Your task to perform on an android device: manage bookmarks in the chrome app Image 0: 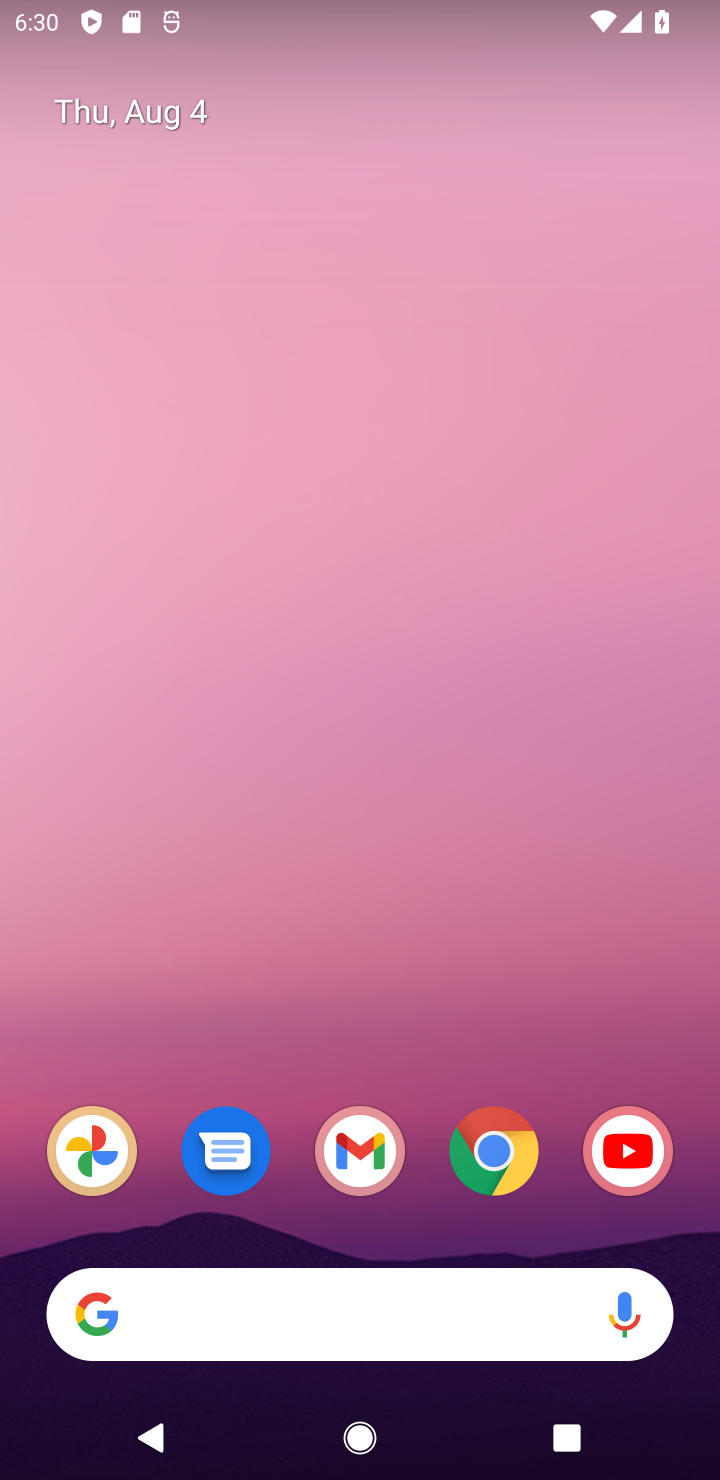
Step 0: click (518, 1170)
Your task to perform on an android device: manage bookmarks in the chrome app Image 1: 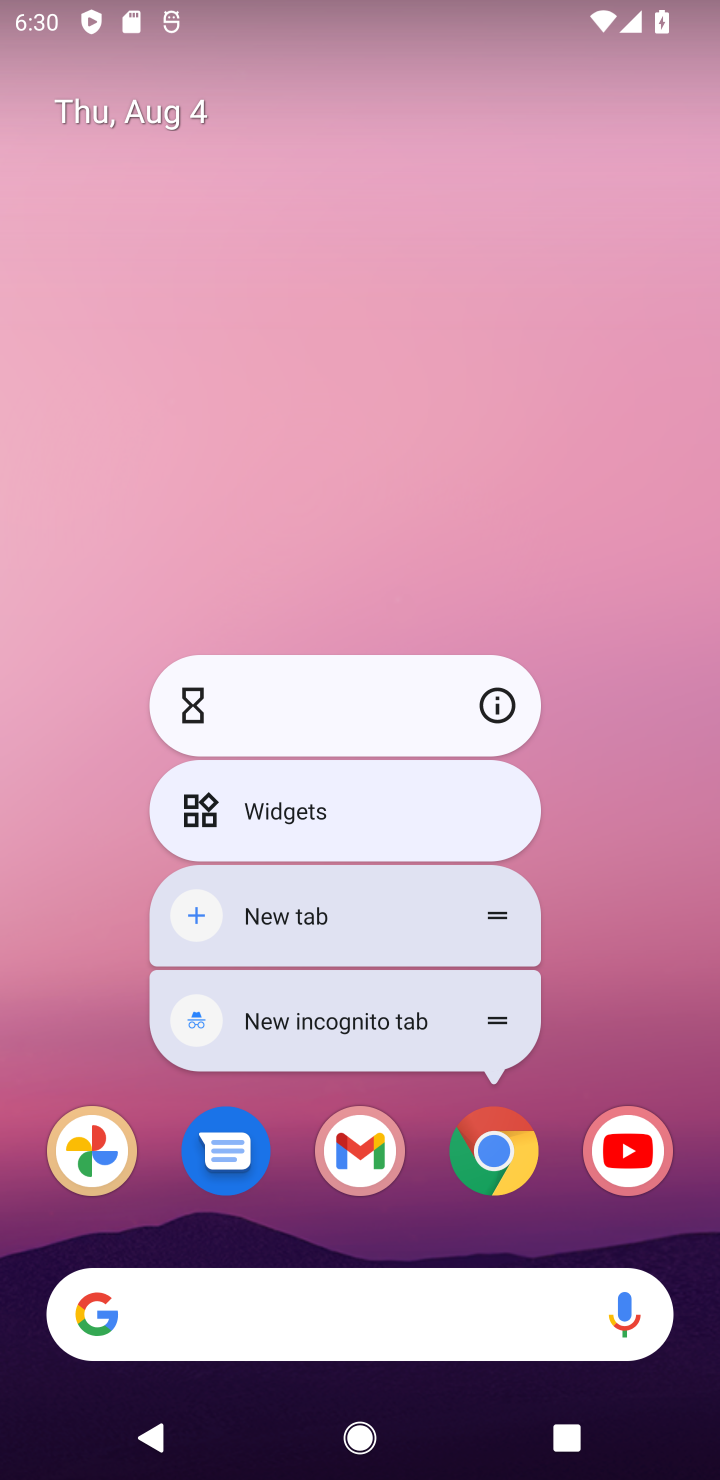
Step 1: click (518, 1170)
Your task to perform on an android device: manage bookmarks in the chrome app Image 2: 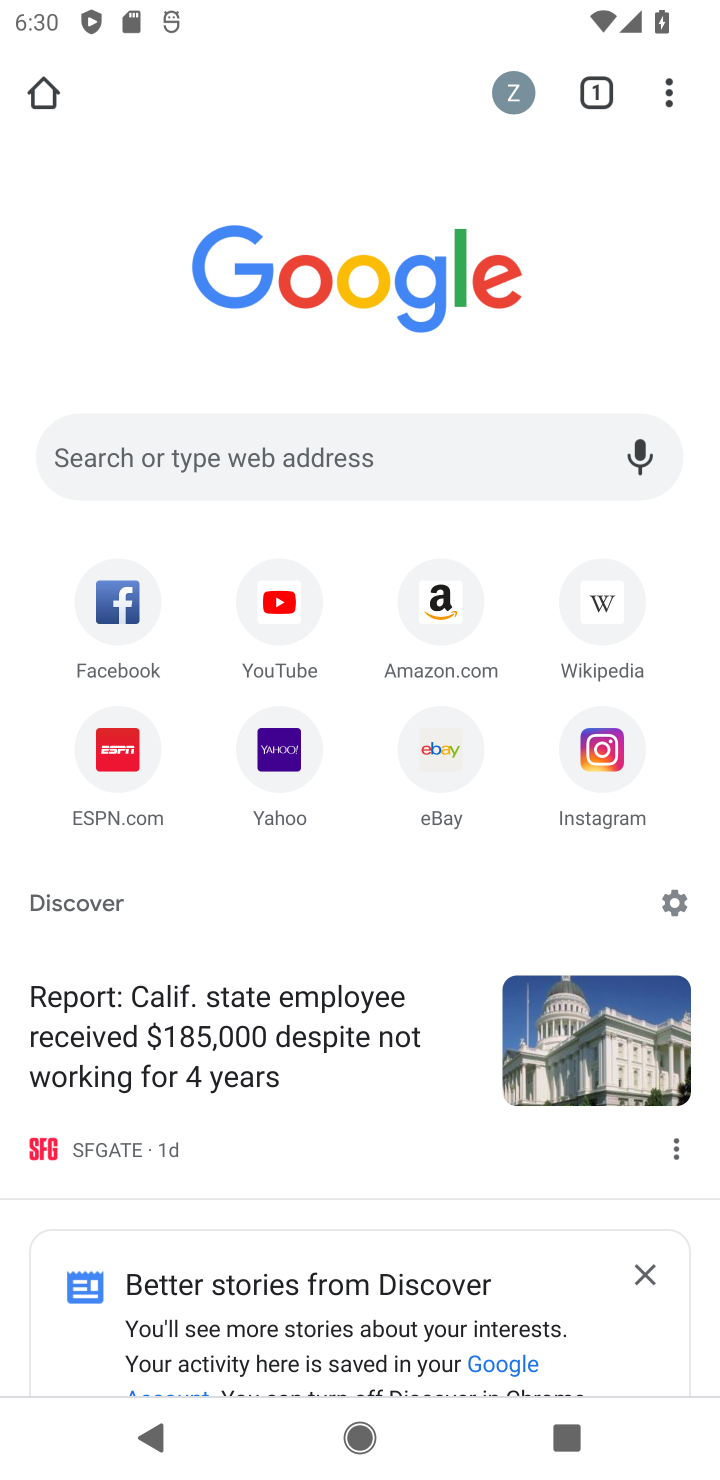
Step 2: click (677, 83)
Your task to perform on an android device: manage bookmarks in the chrome app Image 3: 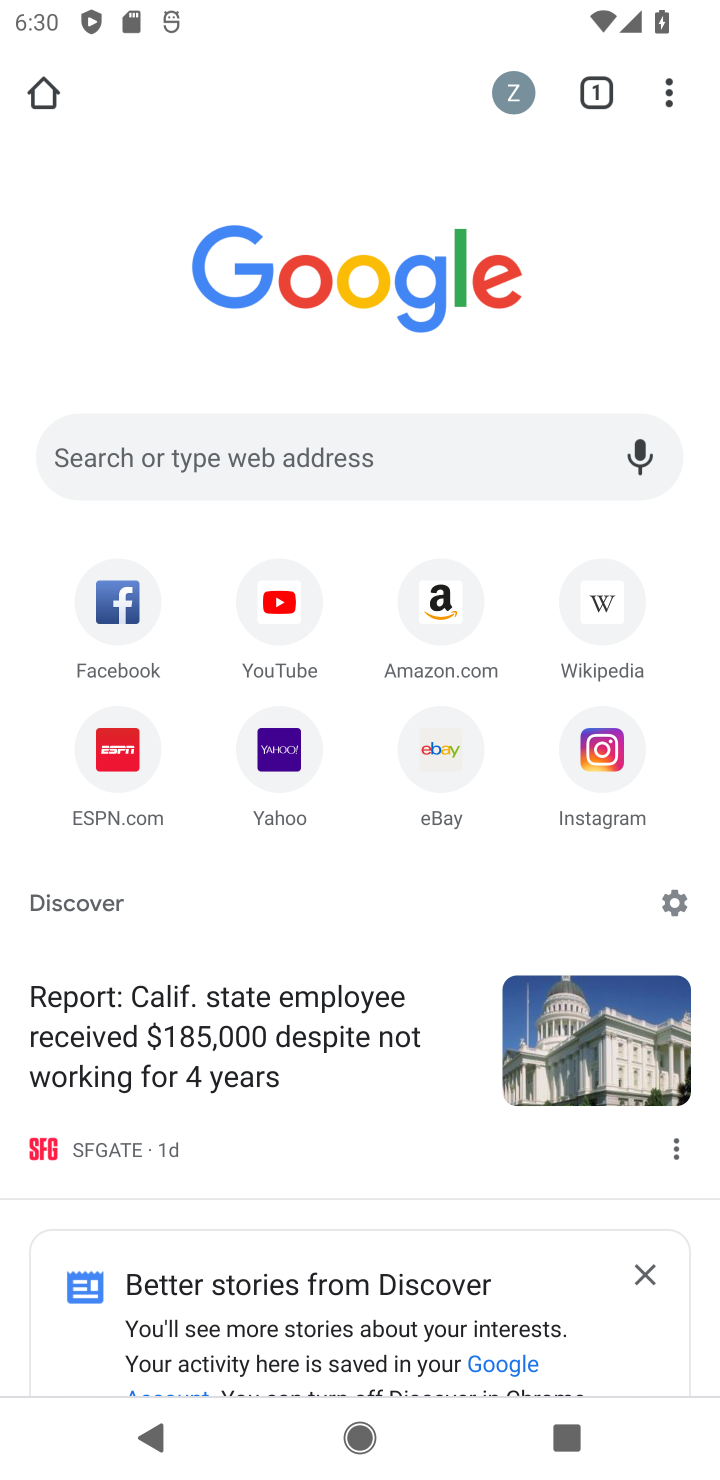
Step 3: click (672, 75)
Your task to perform on an android device: manage bookmarks in the chrome app Image 4: 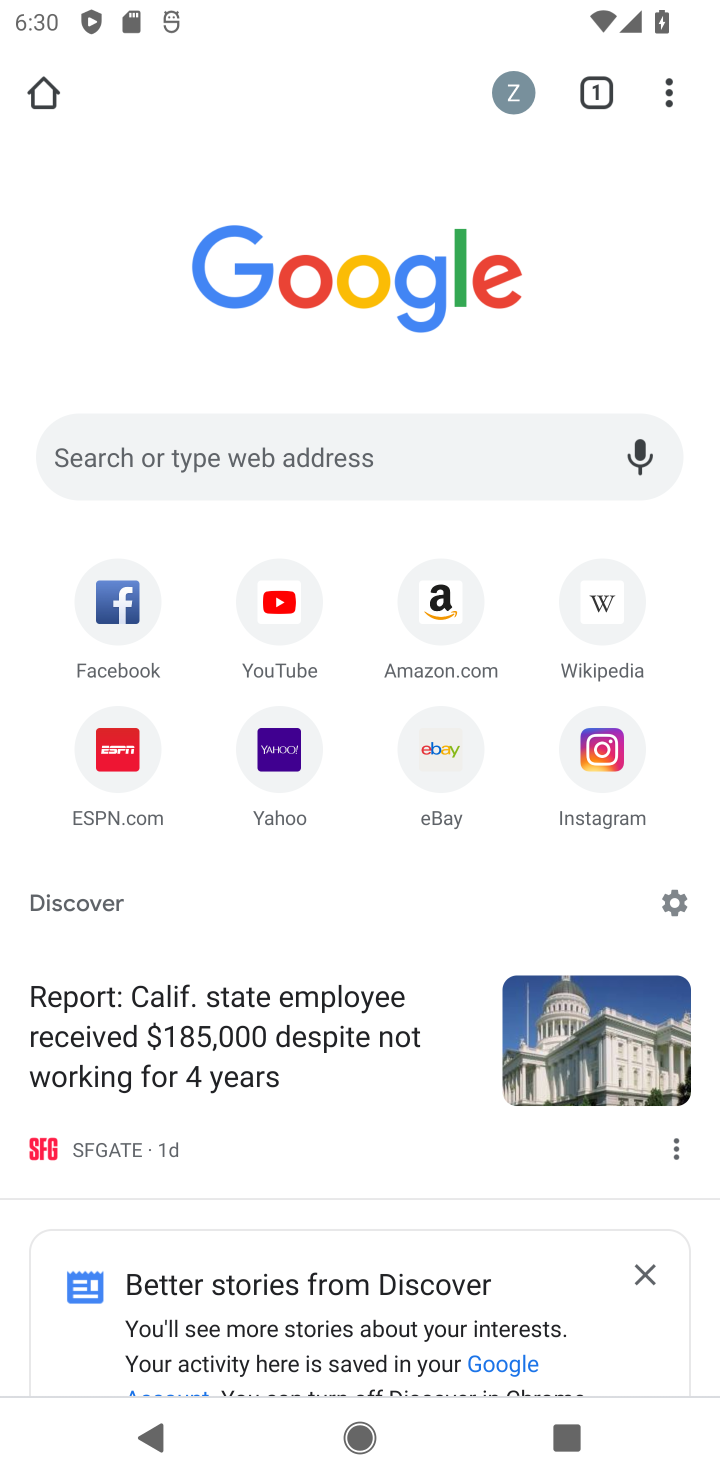
Step 4: click (665, 103)
Your task to perform on an android device: manage bookmarks in the chrome app Image 5: 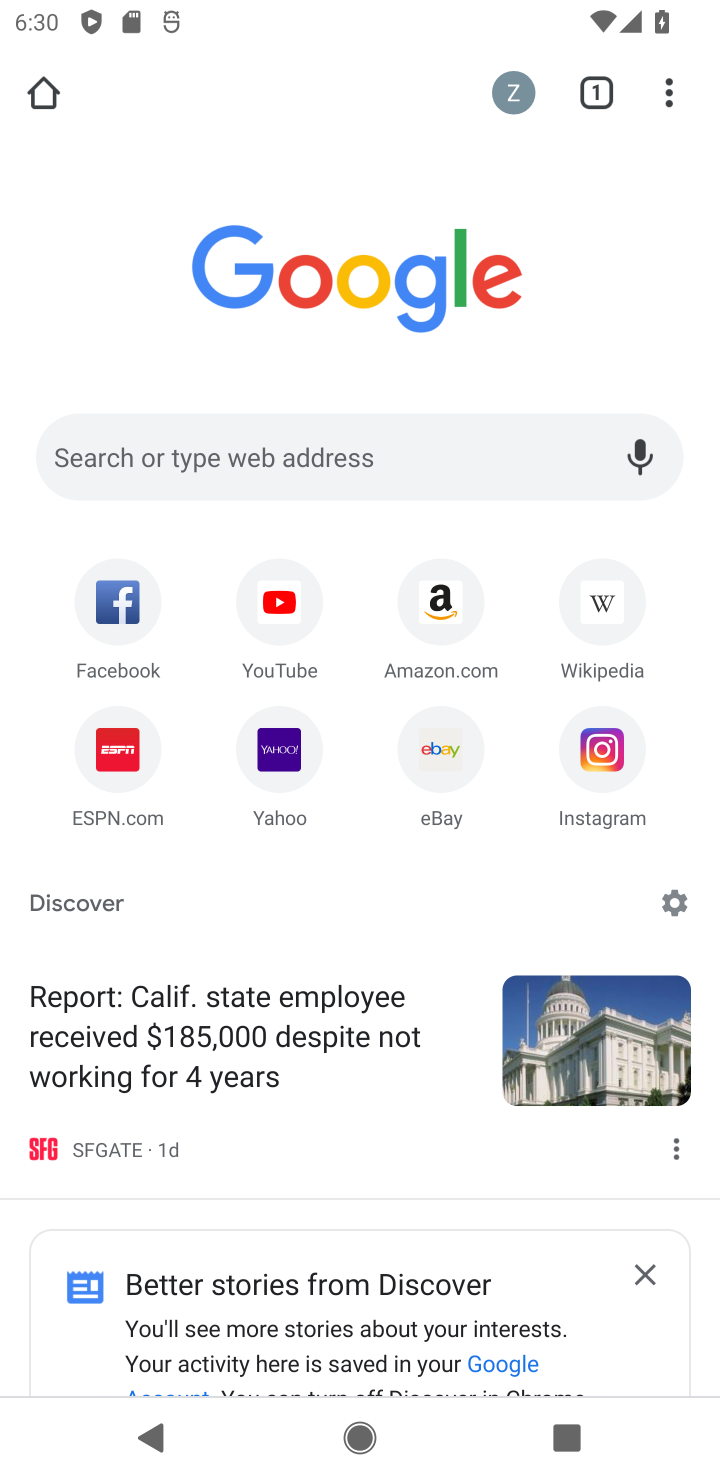
Step 5: click (657, 105)
Your task to perform on an android device: manage bookmarks in the chrome app Image 6: 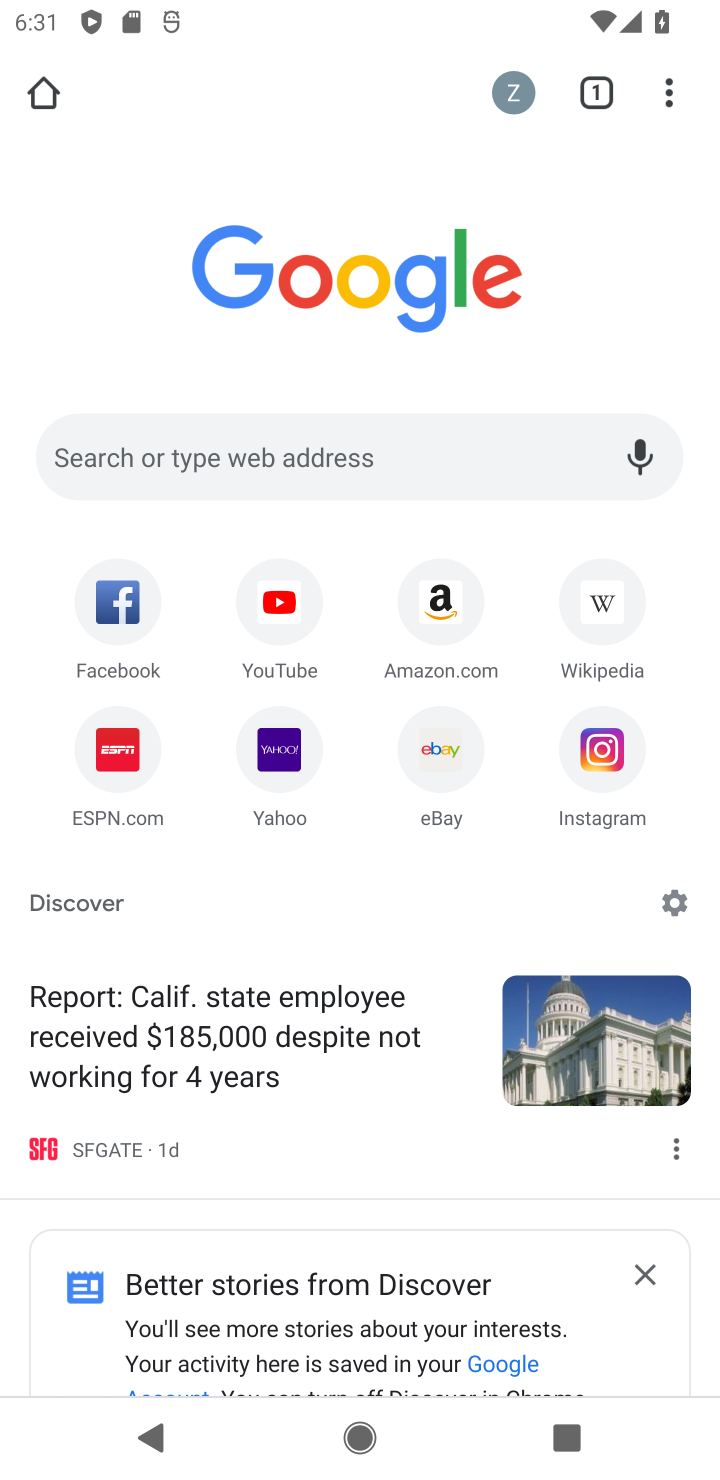
Step 6: click (677, 93)
Your task to perform on an android device: manage bookmarks in the chrome app Image 7: 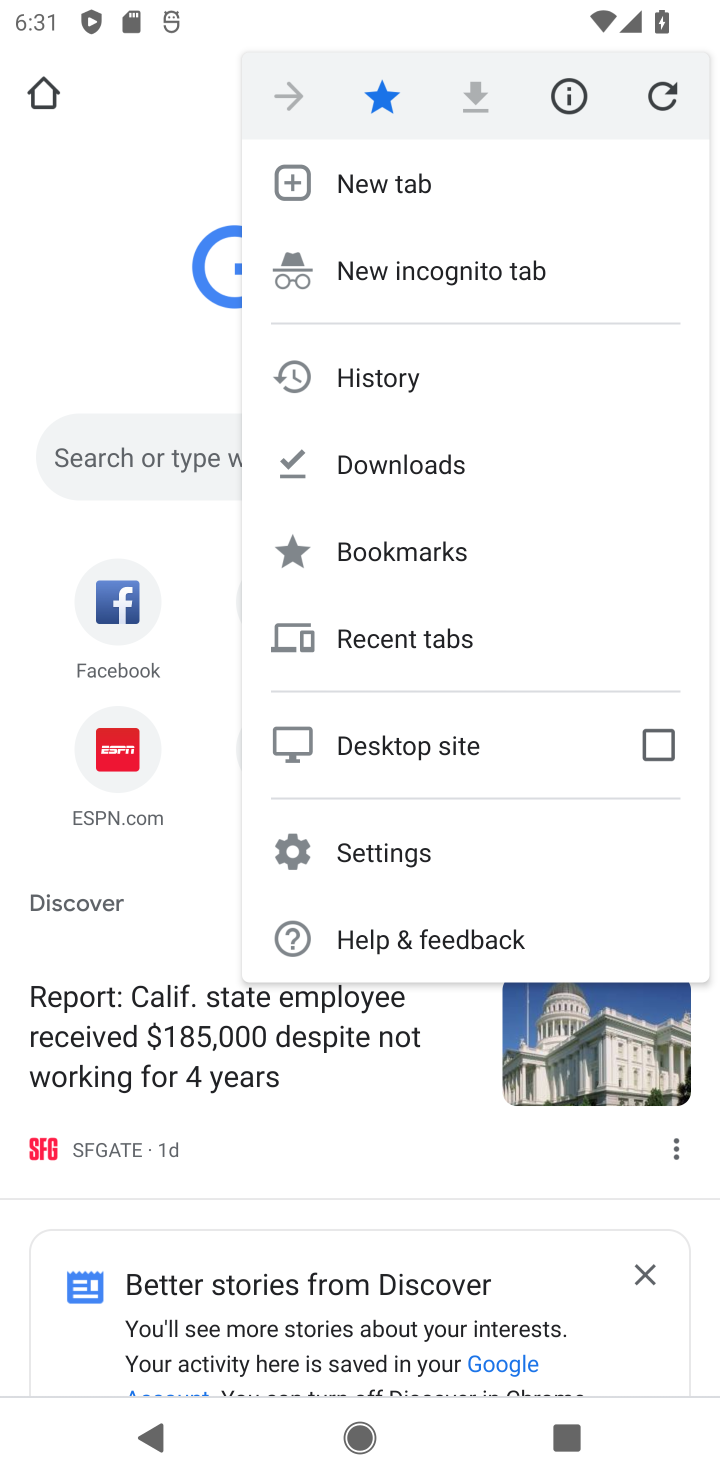
Step 7: click (437, 556)
Your task to perform on an android device: manage bookmarks in the chrome app Image 8: 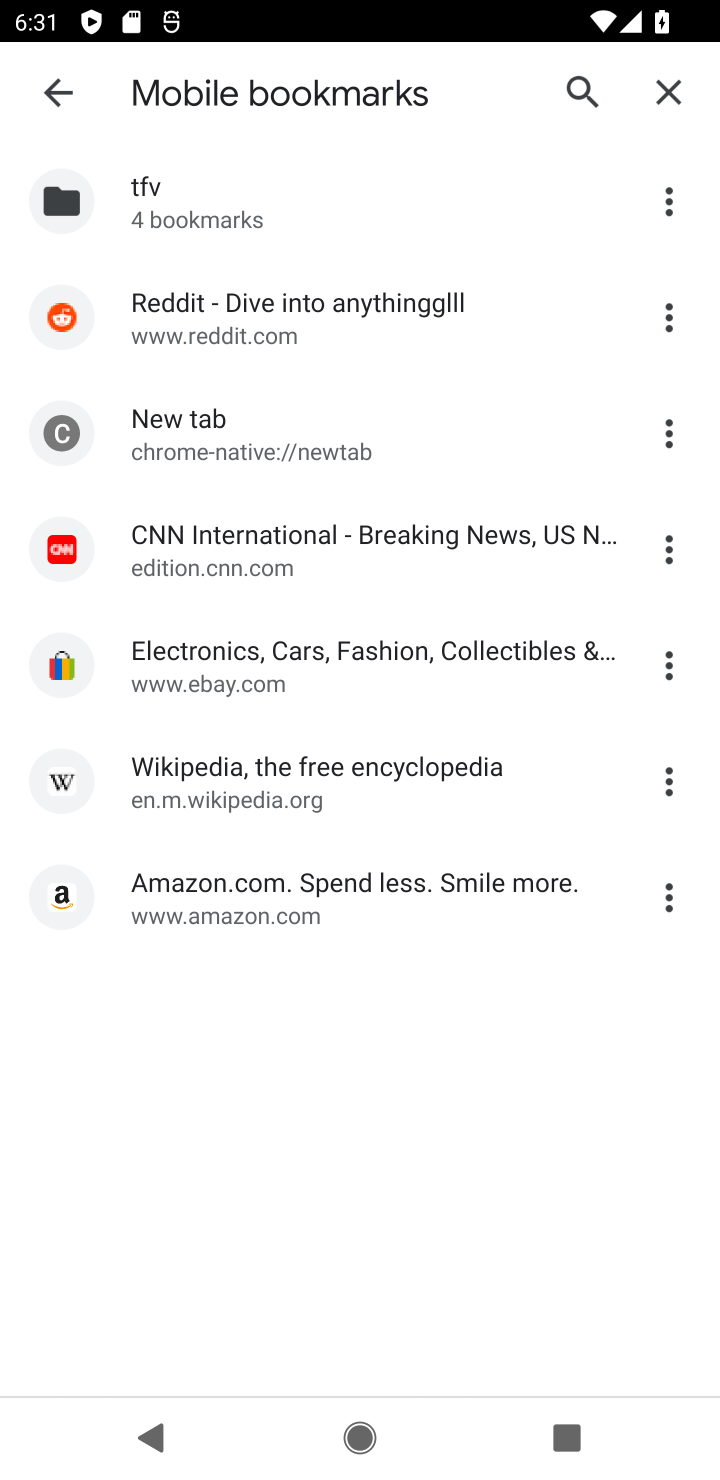
Step 8: click (670, 310)
Your task to perform on an android device: manage bookmarks in the chrome app Image 9: 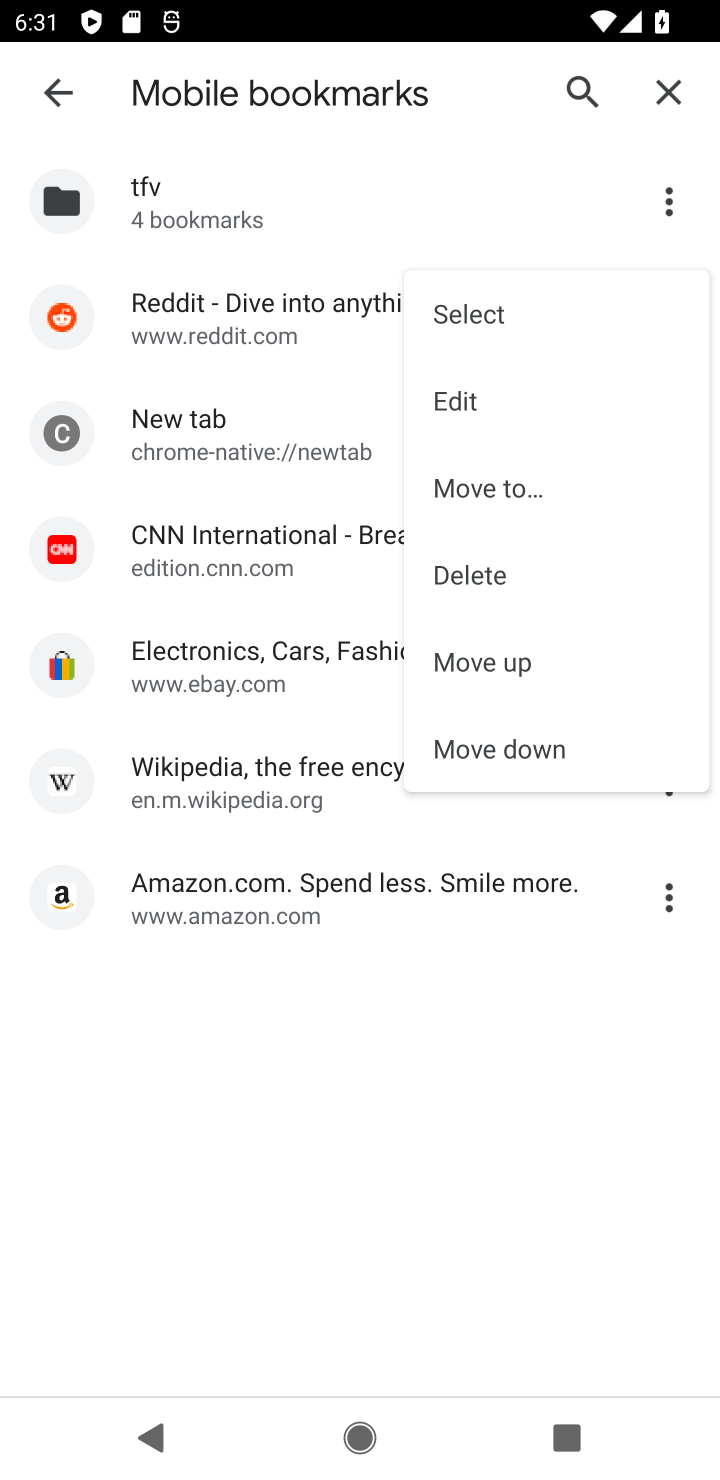
Step 9: click (497, 309)
Your task to perform on an android device: manage bookmarks in the chrome app Image 10: 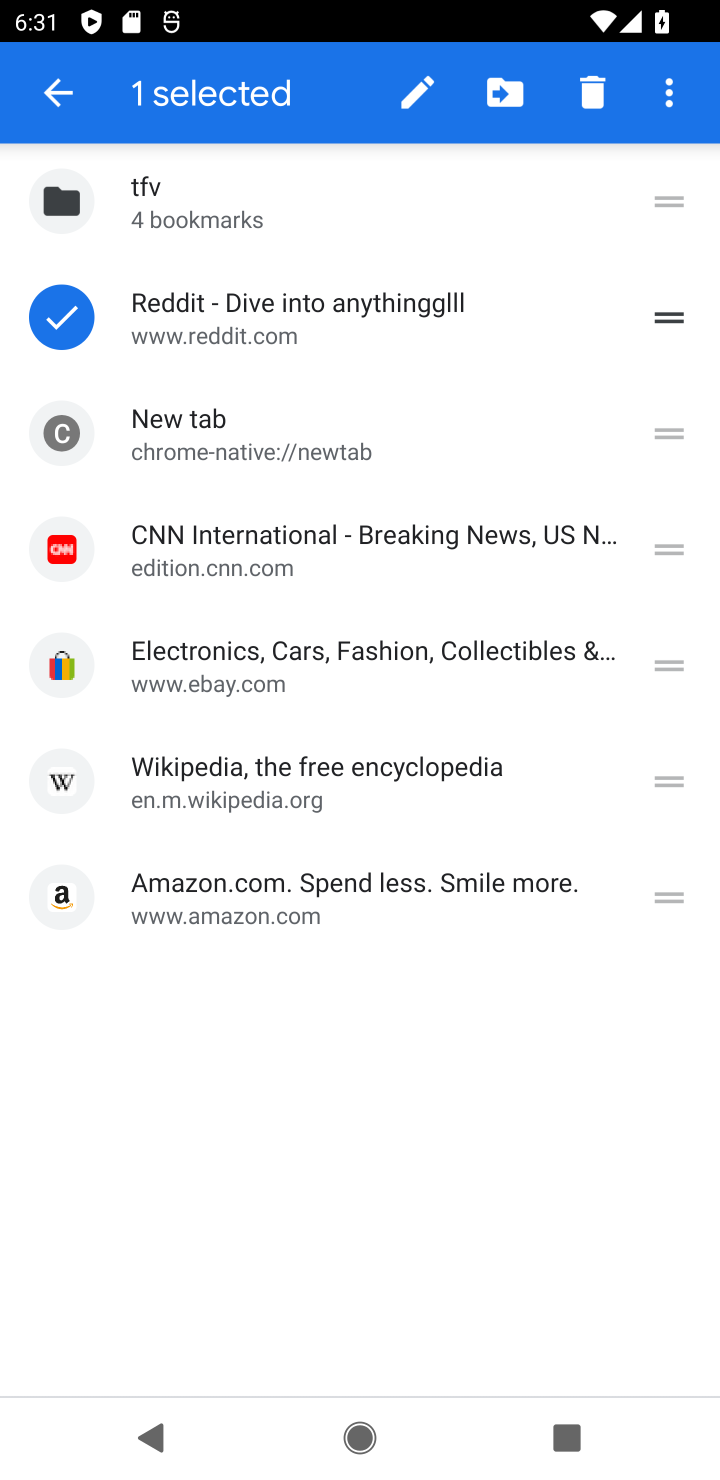
Step 10: click (182, 447)
Your task to perform on an android device: manage bookmarks in the chrome app Image 11: 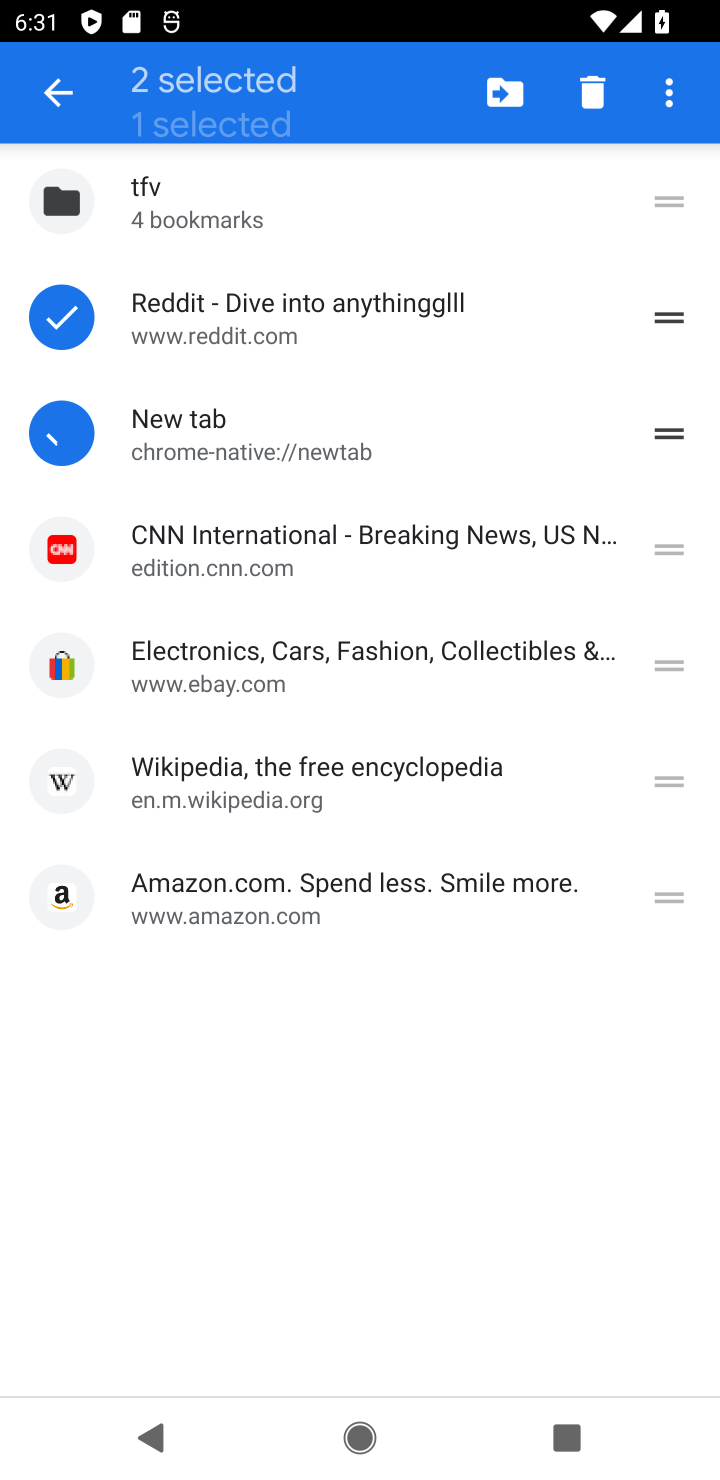
Step 11: click (150, 573)
Your task to perform on an android device: manage bookmarks in the chrome app Image 12: 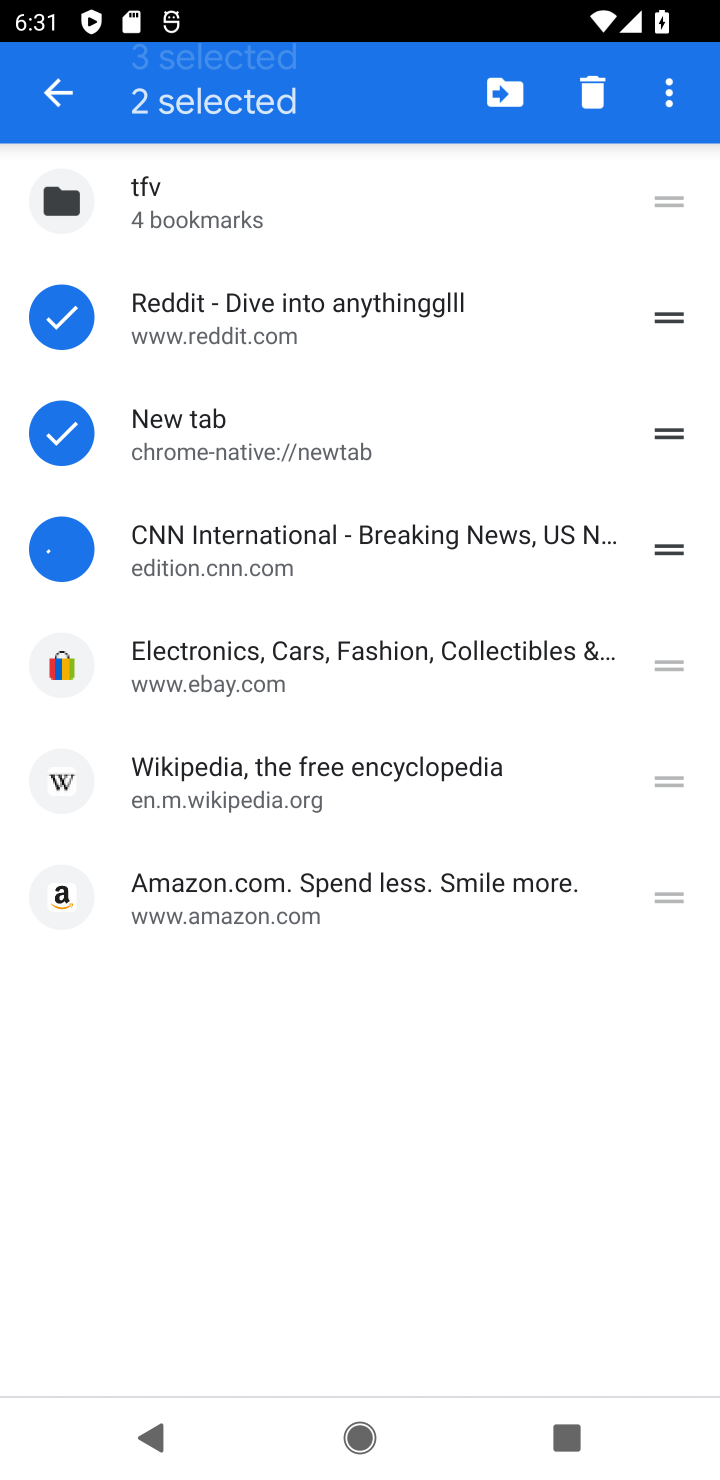
Step 12: click (164, 689)
Your task to perform on an android device: manage bookmarks in the chrome app Image 13: 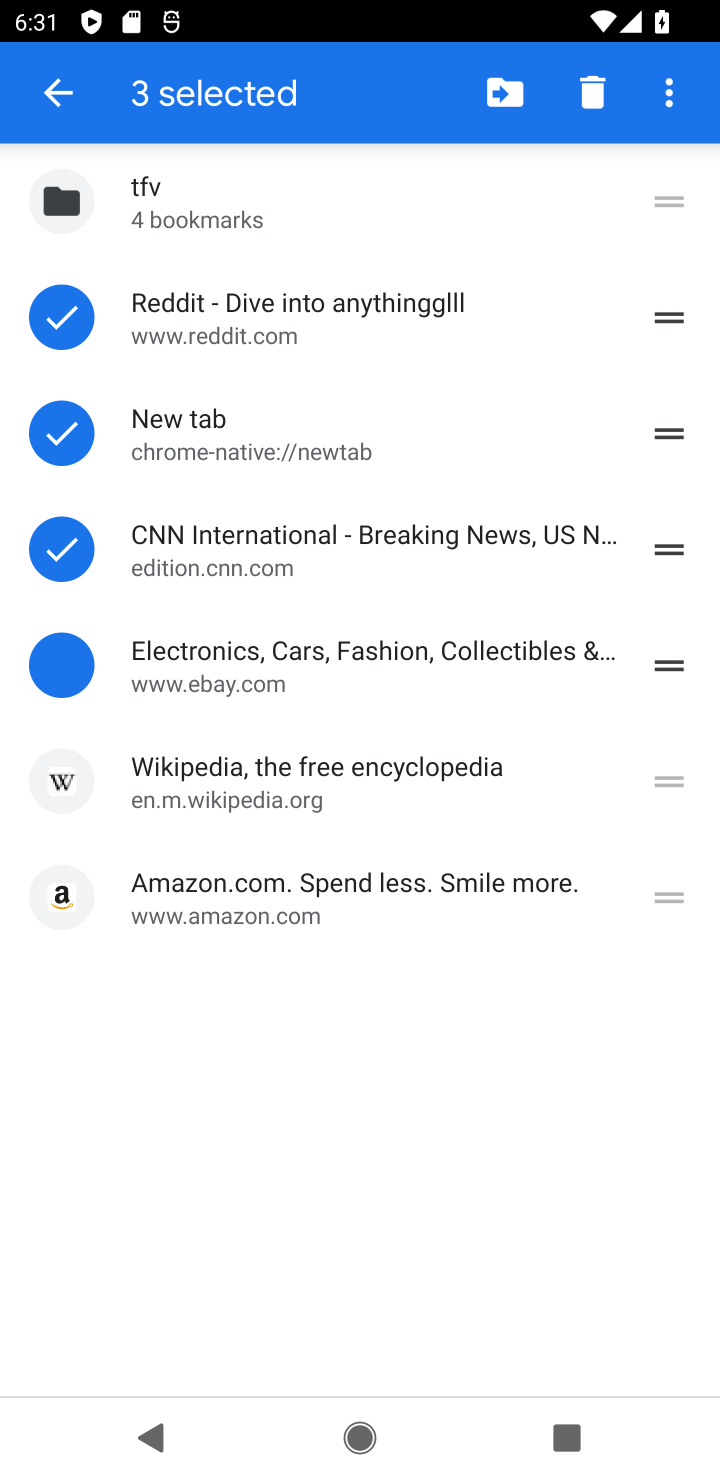
Step 13: click (158, 789)
Your task to perform on an android device: manage bookmarks in the chrome app Image 14: 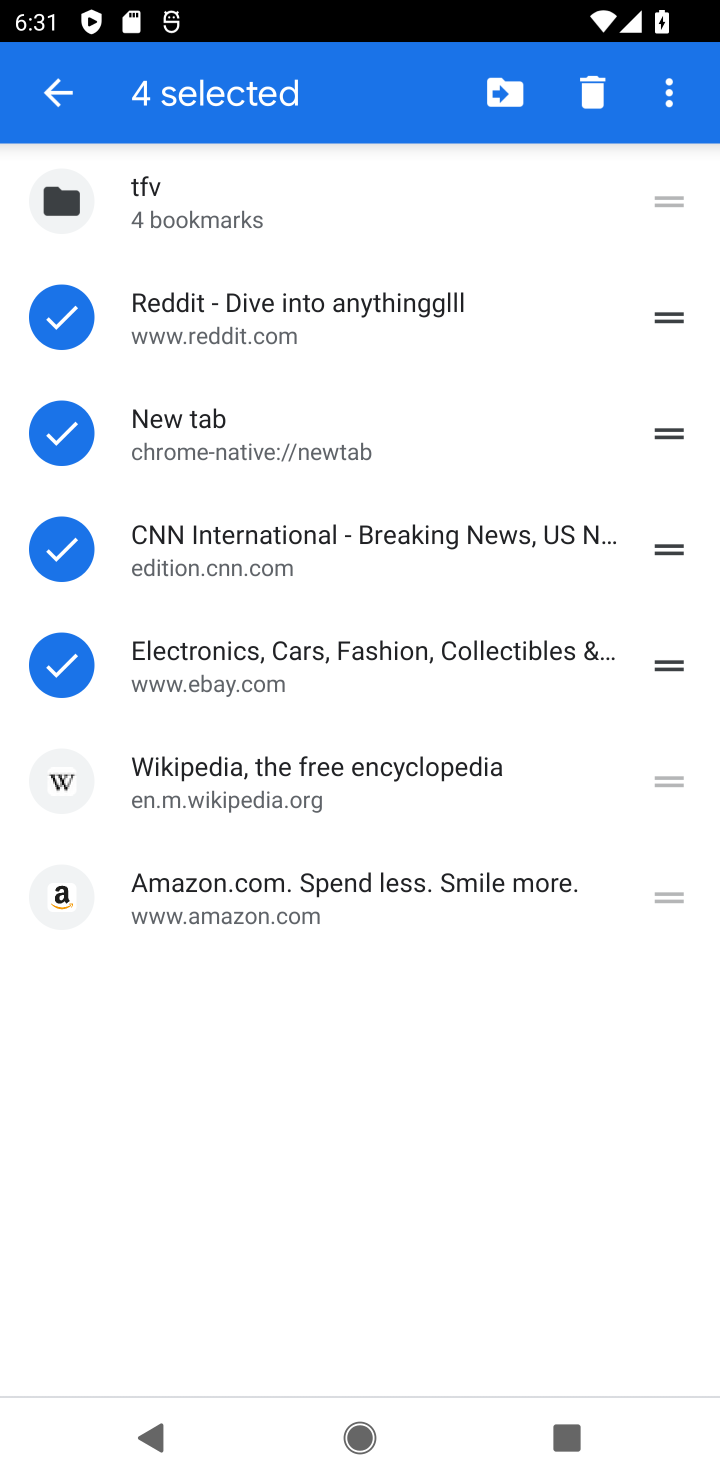
Step 14: click (177, 911)
Your task to perform on an android device: manage bookmarks in the chrome app Image 15: 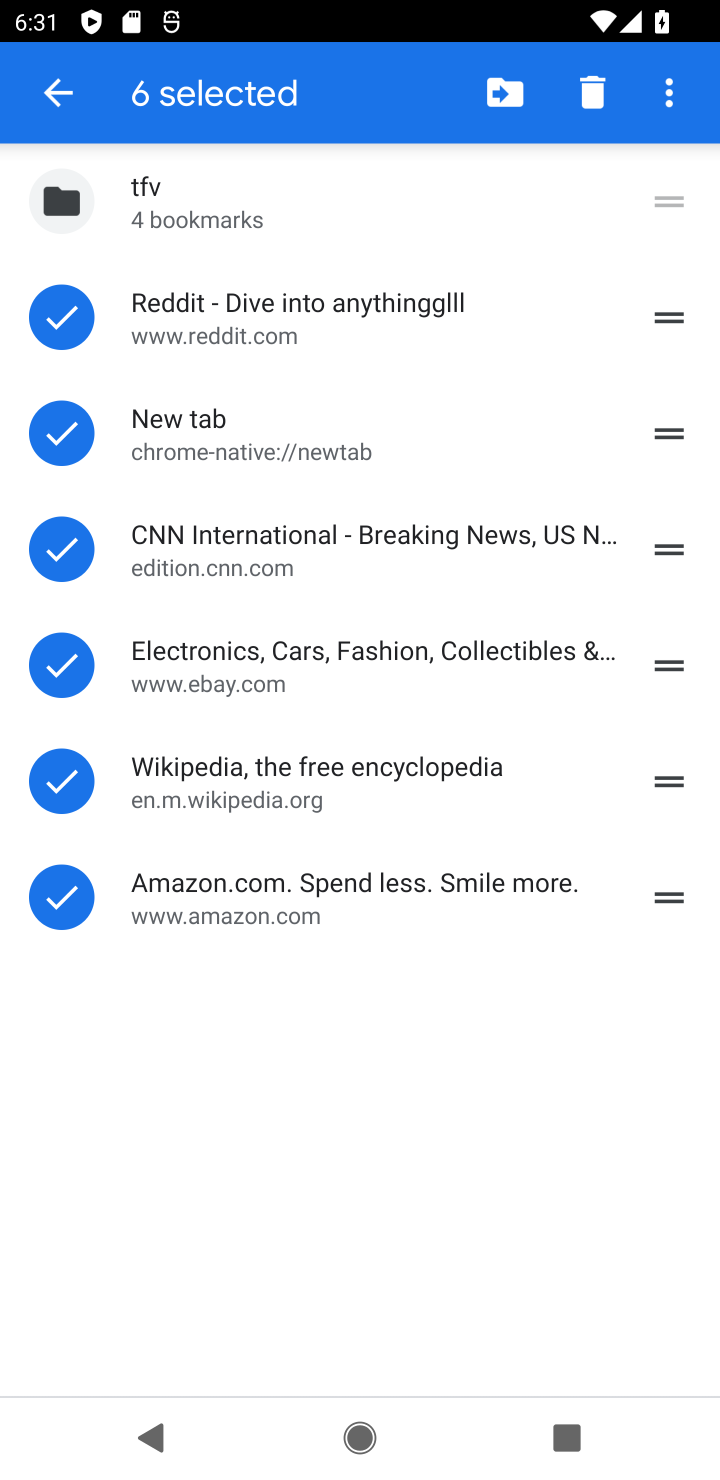
Step 15: click (237, 428)
Your task to perform on an android device: manage bookmarks in the chrome app Image 16: 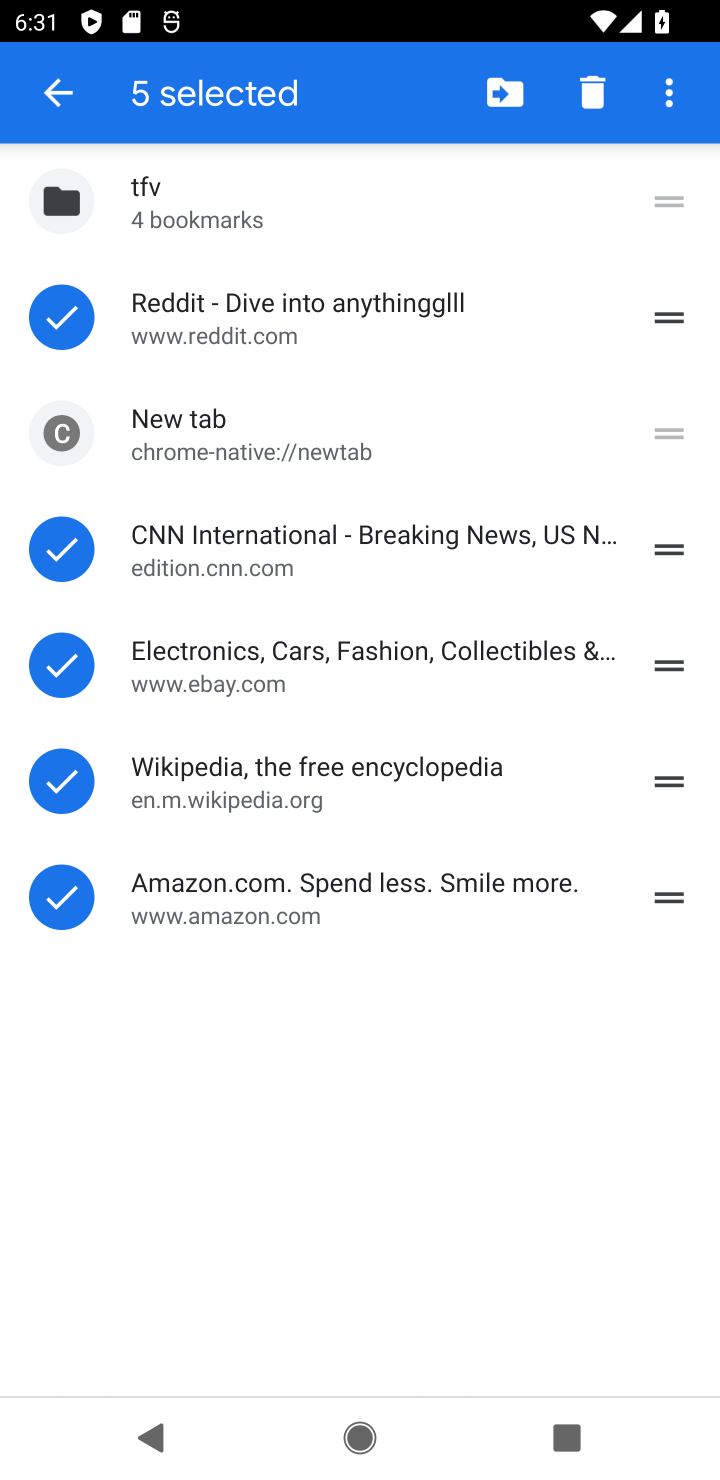
Step 16: click (507, 92)
Your task to perform on an android device: manage bookmarks in the chrome app Image 17: 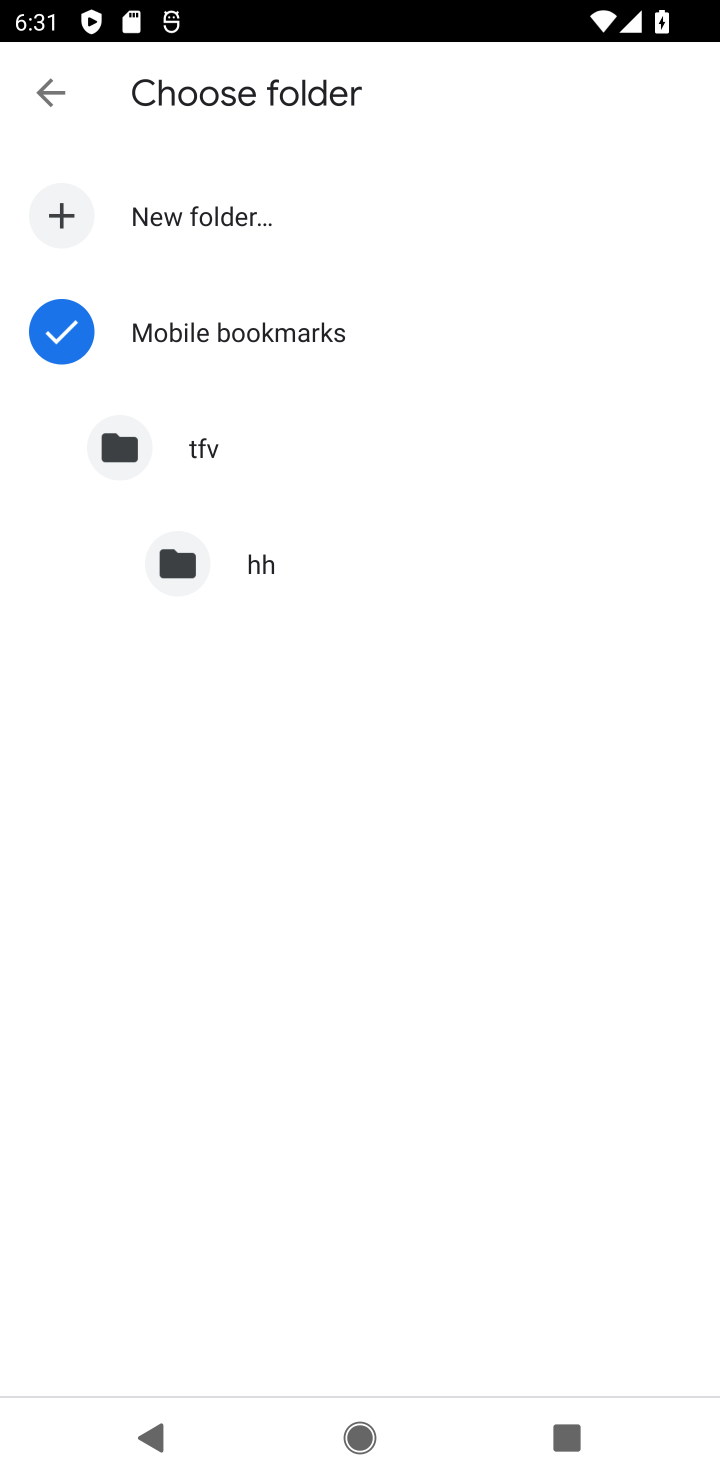
Step 17: click (179, 448)
Your task to perform on an android device: manage bookmarks in the chrome app Image 18: 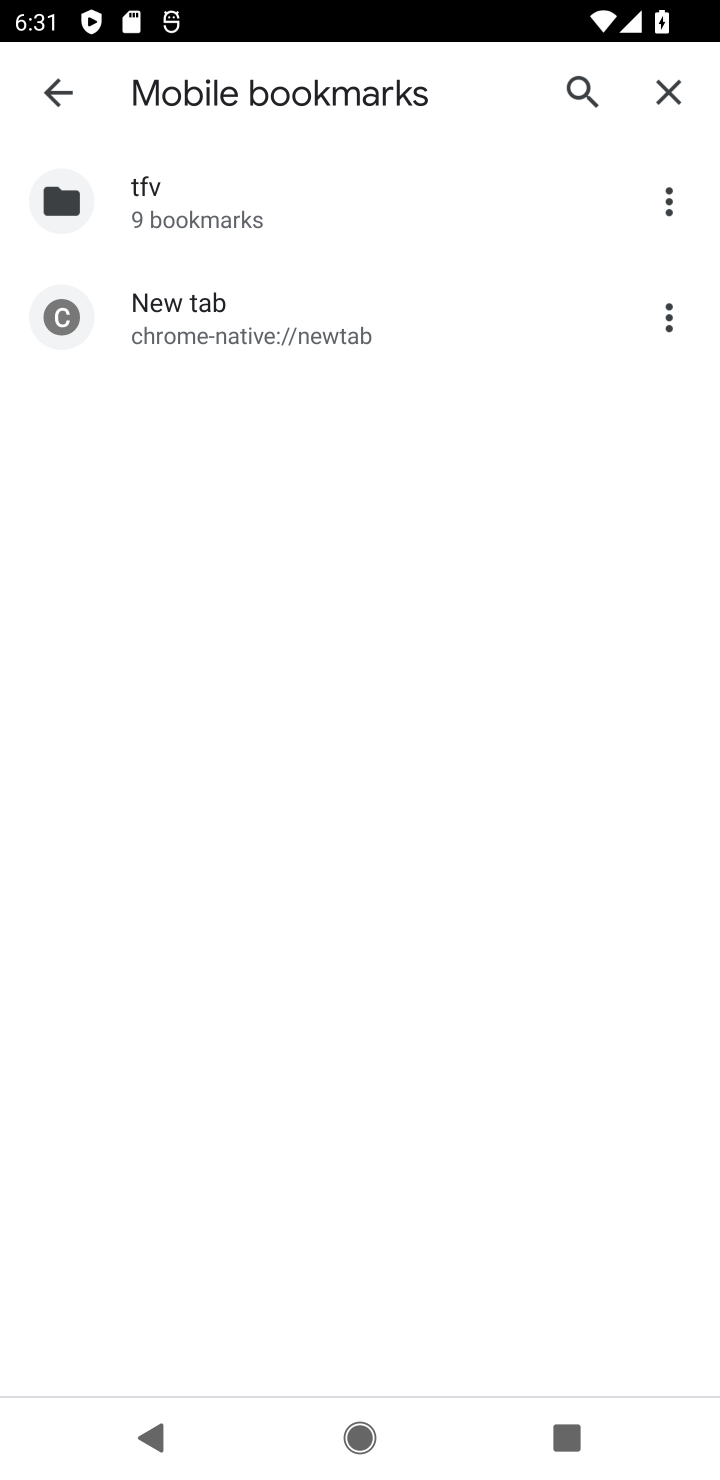
Step 18: task complete